Your task to perform on an android device: clear history in the chrome app Image 0: 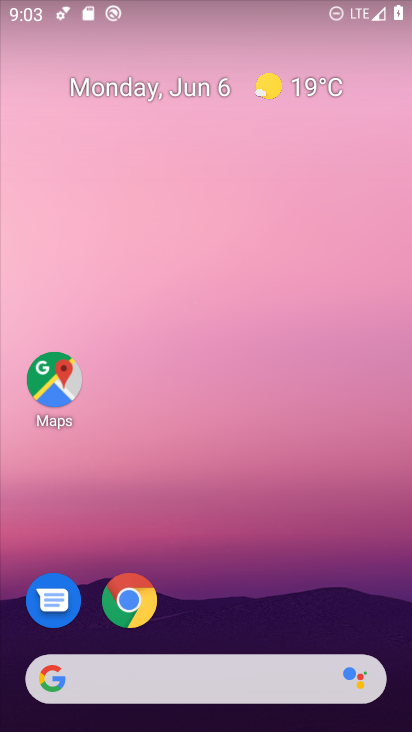
Step 0: click (137, 591)
Your task to perform on an android device: clear history in the chrome app Image 1: 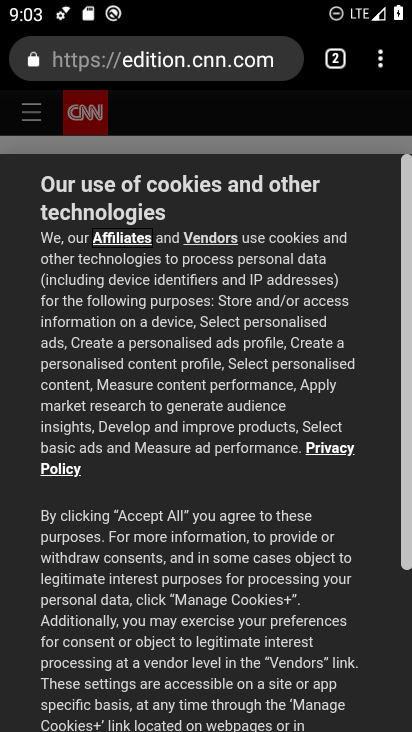
Step 1: click (378, 64)
Your task to perform on an android device: clear history in the chrome app Image 2: 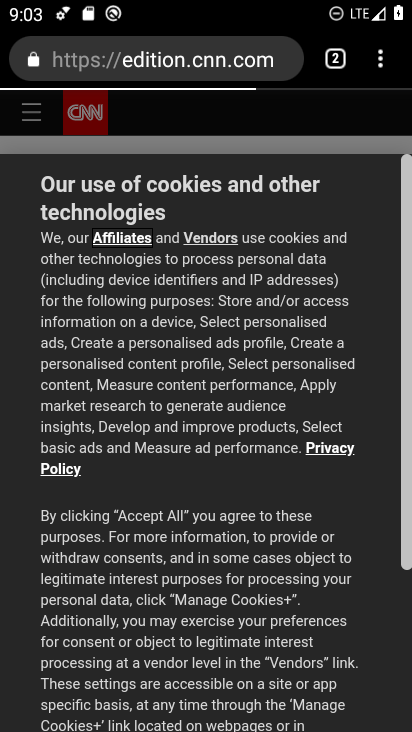
Step 2: click (378, 49)
Your task to perform on an android device: clear history in the chrome app Image 3: 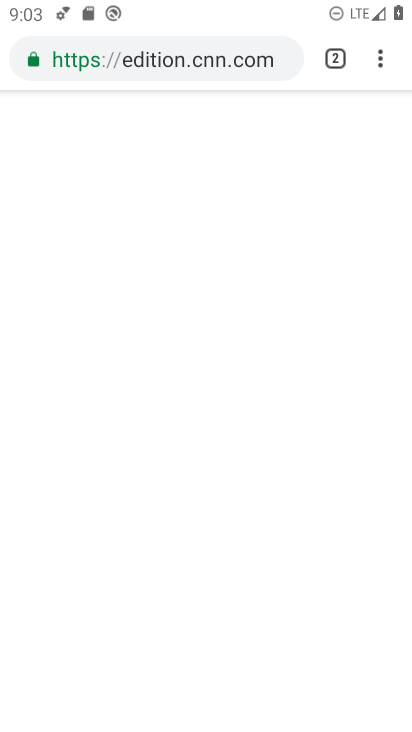
Step 3: click (376, 54)
Your task to perform on an android device: clear history in the chrome app Image 4: 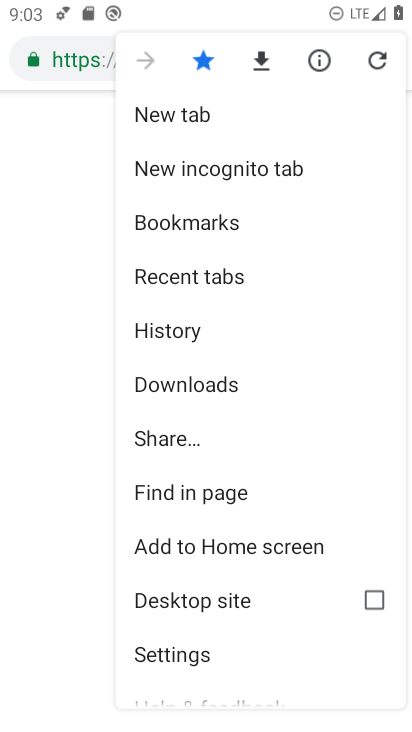
Step 4: click (249, 333)
Your task to perform on an android device: clear history in the chrome app Image 5: 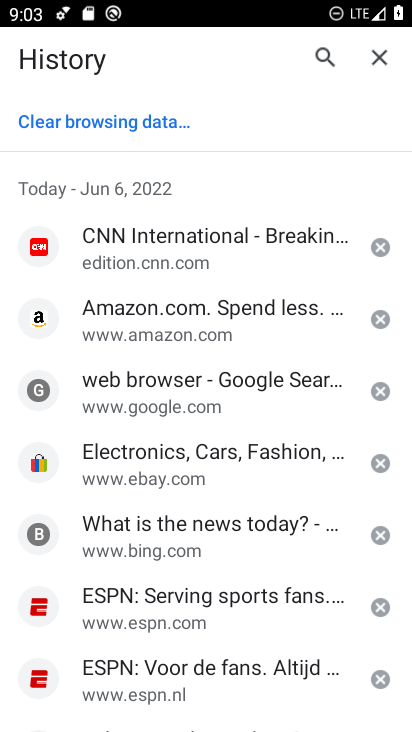
Step 5: click (118, 114)
Your task to perform on an android device: clear history in the chrome app Image 6: 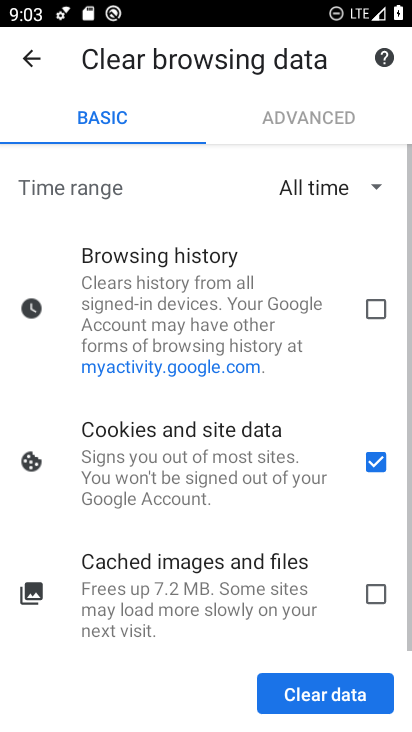
Step 6: click (307, 693)
Your task to perform on an android device: clear history in the chrome app Image 7: 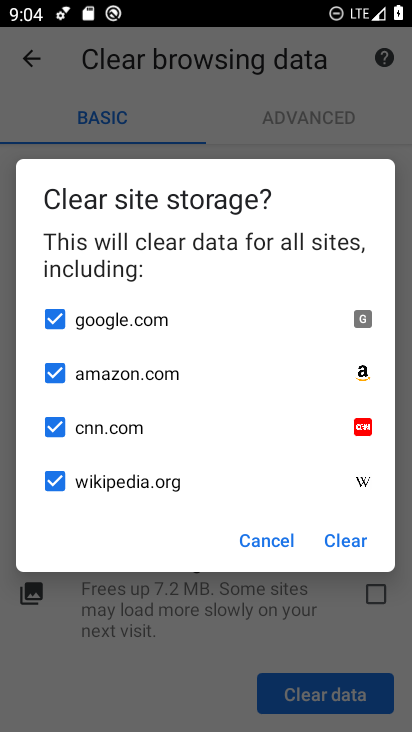
Step 7: click (345, 528)
Your task to perform on an android device: clear history in the chrome app Image 8: 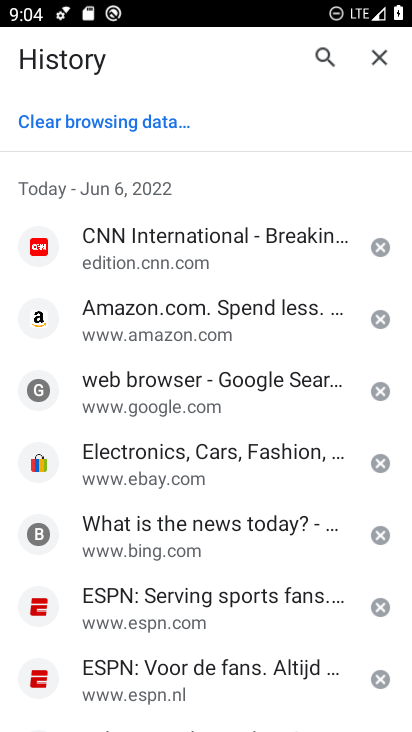
Step 8: task complete